Your task to perform on an android device: turn off notifications in google photos Image 0: 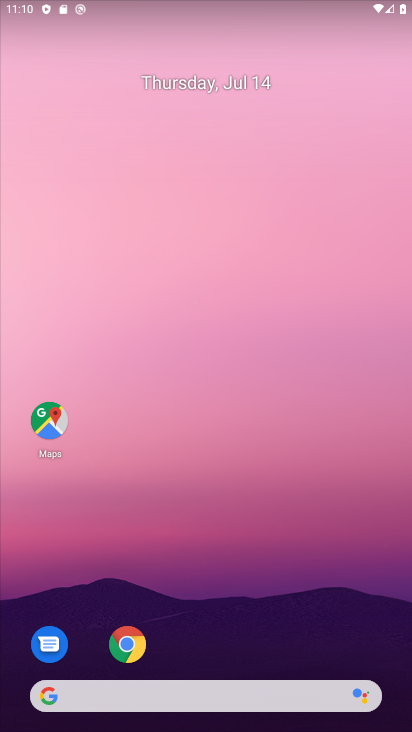
Step 0: drag from (376, 637) to (199, 4)
Your task to perform on an android device: turn off notifications in google photos Image 1: 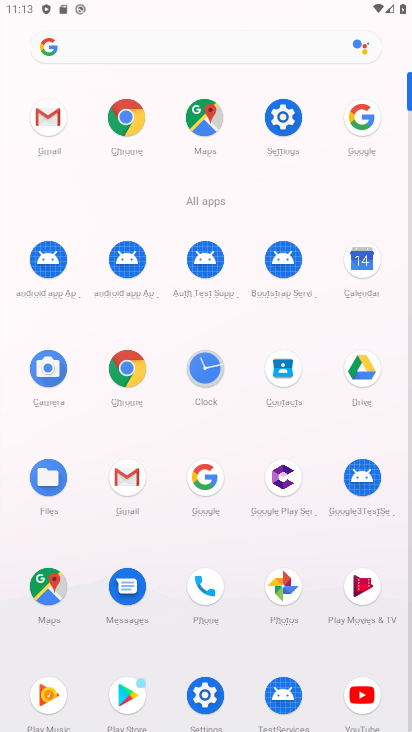
Step 1: click (283, 595)
Your task to perform on an android device: turn off notifications in google photos Image 2: 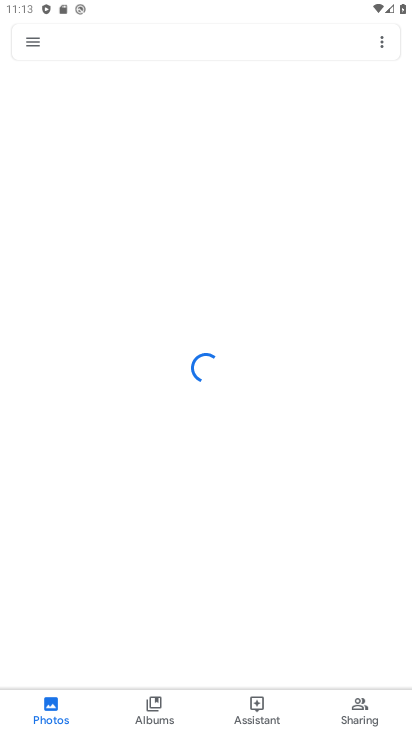
Step 2: click (27, 41)
Your task to perform on an android device: turn off notifications in google photos Image 3: 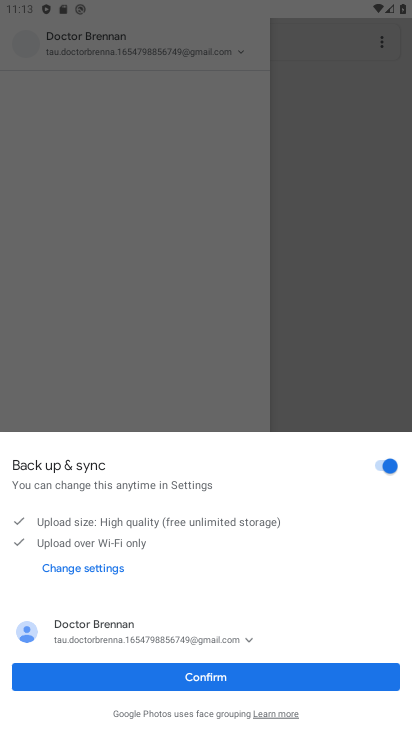
Step 3: click (194, 673)
Your task to perform on an android device: turn off notifications in google photos Image 4: 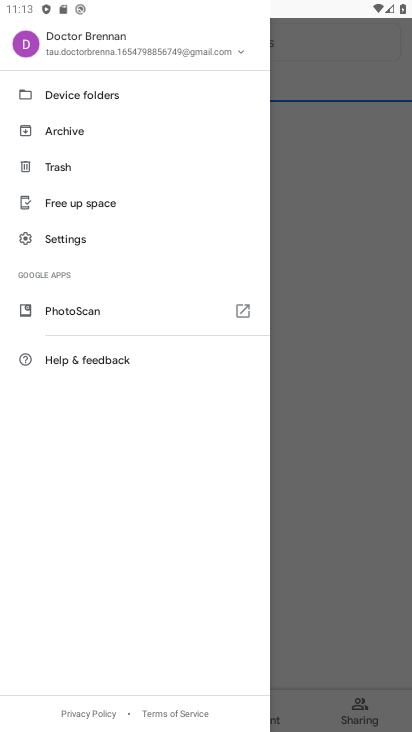
Step 4: click (63, 239)
Your task to perform on an android device: turn off notifications in google photos Image 5: 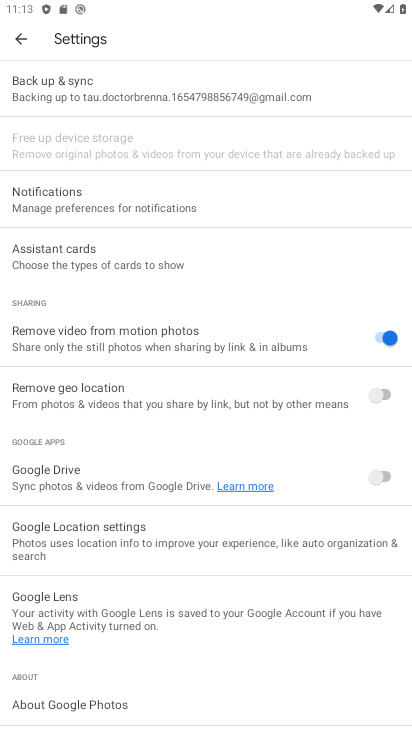
Step 5: click (97, 189)
Your task to perform on an android device: turn off notifications in google photos Image 6: 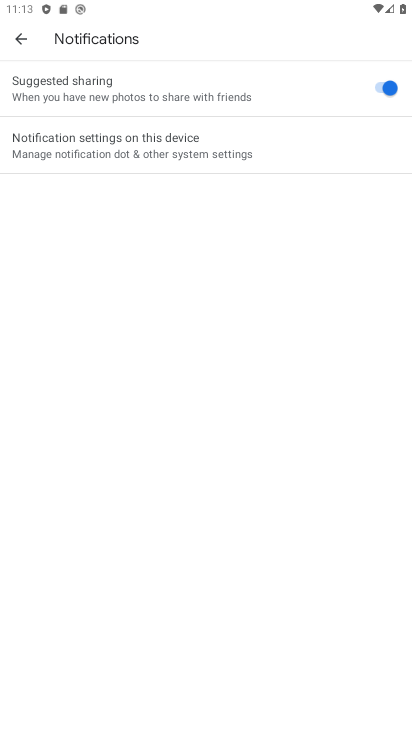
Step 6: click (371, 81)
Your task to perform on an android device: turn off notifications in google photos Image 7: 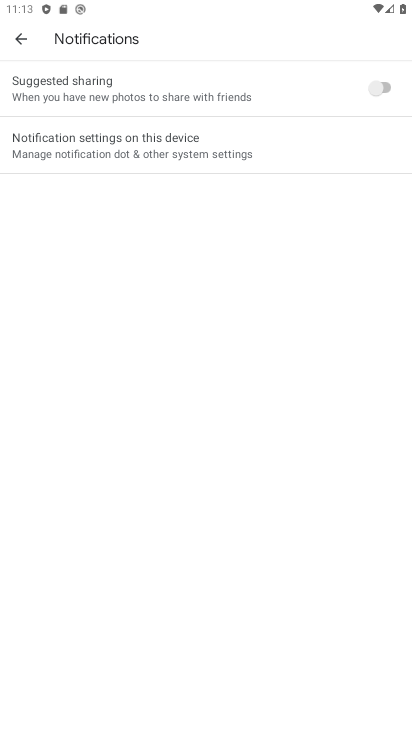
Step 7: task complete